Your task to perform on an android device: Is it going to rain tomorrow? Image 0: 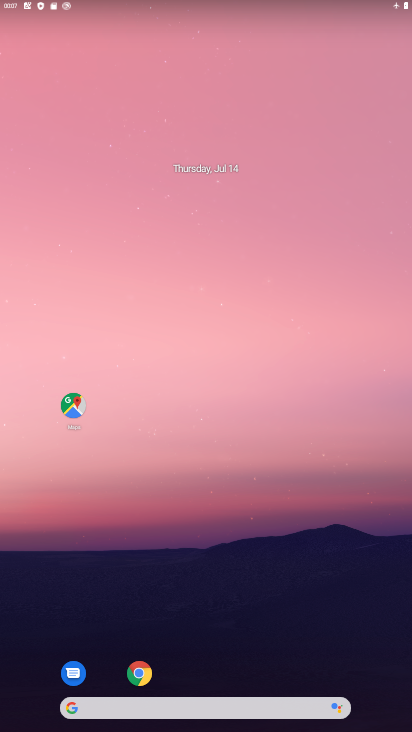
Step 0: drag from (195, 642) to (227, 61)
Your task to perform on an android device: Is it going to rain tomorrow? Image 1: 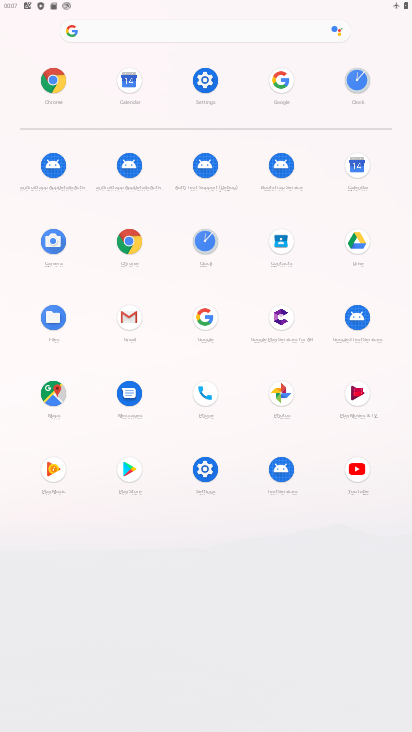
Step 1: click (287, 98)
Your task to perform on an android device: Is it going to rain tomorrow? Image 2: 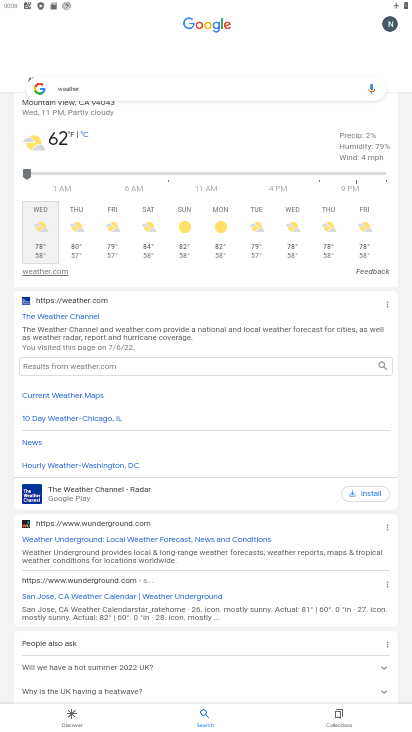
Step 2: task complete